Your task to perform on an android device: Search for acer predator on target.com, select the first entry, add it to the cart, then select checkout. Image 0: 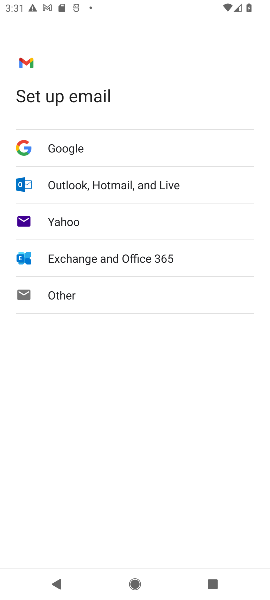
Step 0: press home button
Your task to perform on an android device: Search for acer predator on target.com, select the first entry, add it to the cart, then select checkout. Image 1: 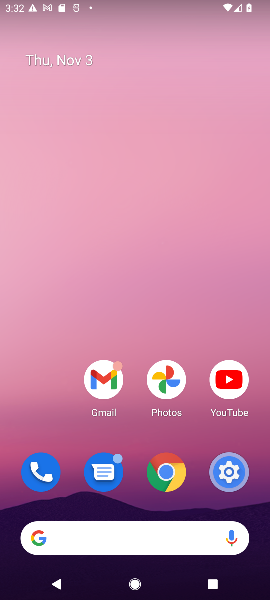
Step 1: click (120, 548)
Your task to perform on an android device: Search for acer predator on target.com, select the first entry, add it to the cart, then select checkout. Image 2: 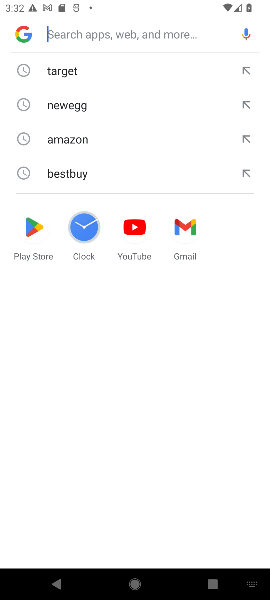
Step 2: click (106, 66)
Your task to perform on an android device: Search for acer predator on target.com, select the first entry, add it to the cart, then select checkout. Image 3: 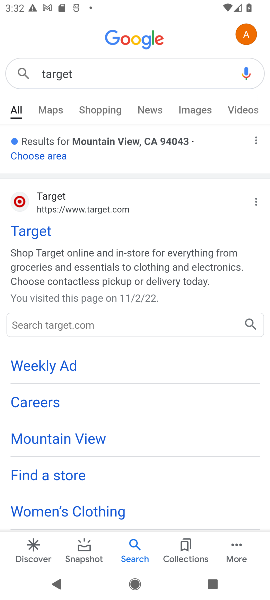
Step 3: click (34, 228)
Your task to perform on an android device: Search for acer predator on target.com, select the first entry, add it to the cart, then select checkout. Image 4: 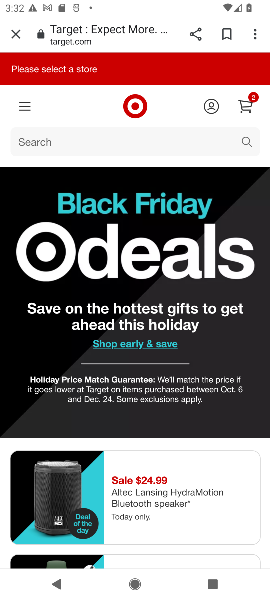
Step 4: click (104, 130)
Your task to perform on an android device: Search for acer predator on target.com, select the first entry, add it to the cart, then select checkout. Image 5: 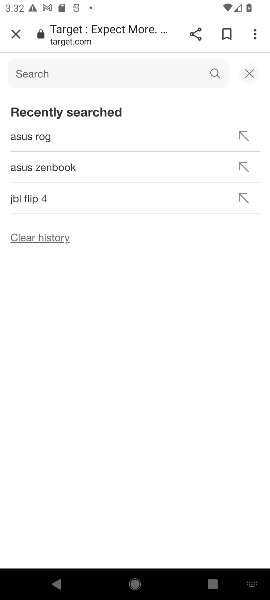
Step 5: type "acer pred"
Your task to perform on an android device: Search for acer predator on target.com, select the first entry, add it to the cart, then select checkout. Image 6: 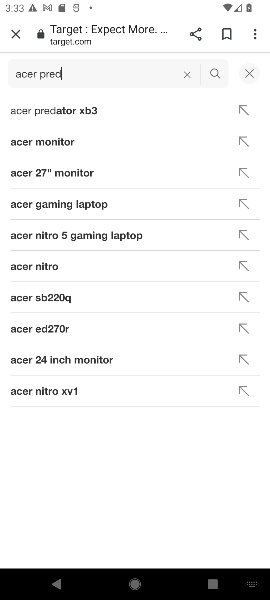
Step 6: type "acer "
Your task to perform on an android device: Search for acer predator on target.com, select the first entry, add it to the cart, then select checkout. Image 7: 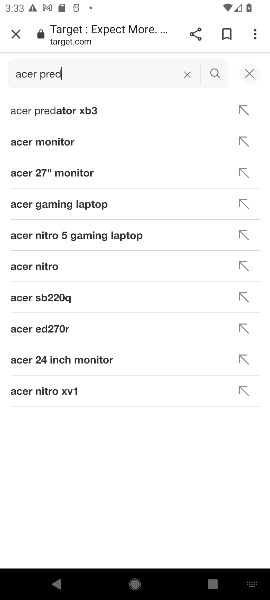
Step 7: click (105, 117)
Your task to perform on an android device: Search for acer predator on target.com, select the first entry, add it to the cart, then select checkout. Image 8: 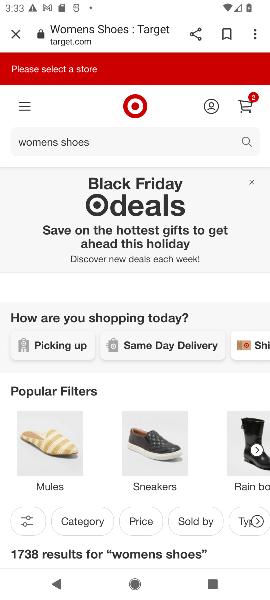
Step 8: click (133, 149)
Your task to perform on an android device: Search for acer predator on target.com, select the first entry, add it to the cart, then select checkout. Image 9: 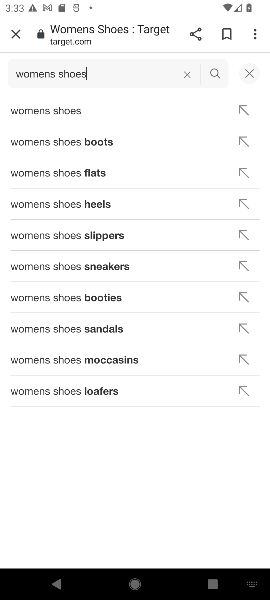
Step 9: click (187, 77)
Your task to perform on an android device: Search for acer predator on target.com, select the first entry, add it to the cart, then select checkout. Image 10: 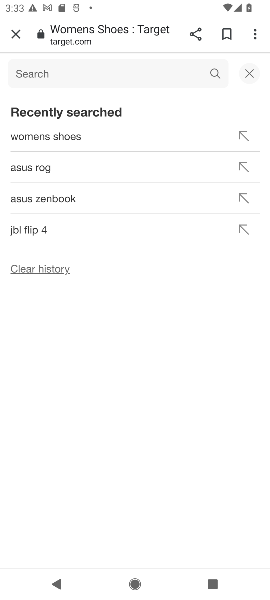
Step 10: click (76, 71)
Your task to perform on an android device: Search for acer predator on target.com, select the first entry, add it to the cart, then select checkout. Image 11: 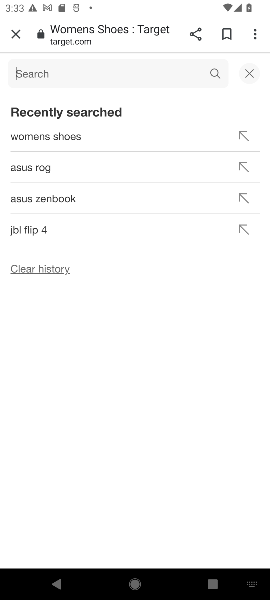
Step 11: type "acer predator"
Your task to perform on an android device: Search for acer predator on target.com, select the first entry, add it to the cart, then select checkout. Image 12: 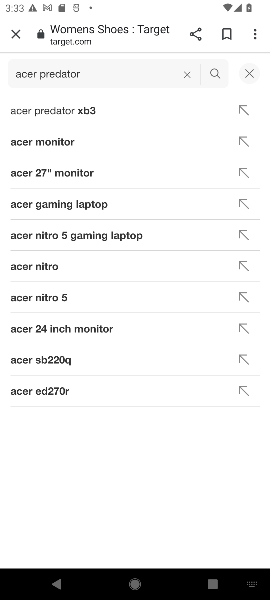
Step 12: click (218, 70)
Your task to perform on an android device: Search for acer predator on target.com, select the first entry, add it to the cart, then select checkout. Image 13: 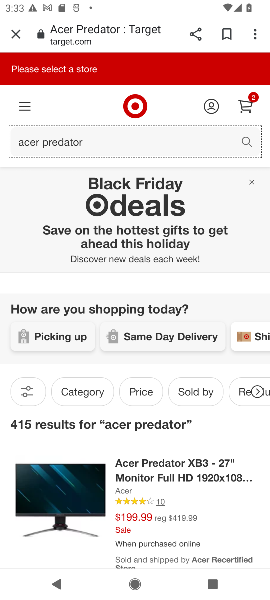
Step 13: click (182, 472)
Your task to perform on an android device: Search for acer predator on target.com, select the first entry, add it to the cart, then select checkout. Image 14: 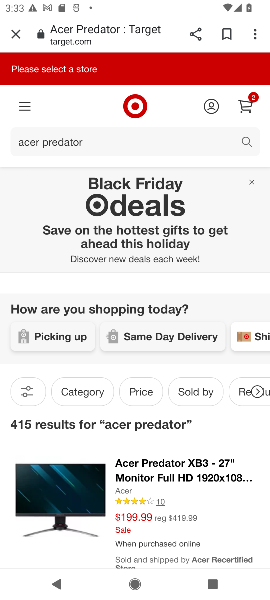
Step 14: click (182, 472)
Your task to perform on an android device: Search for acer predator on target.com, select the first entry, add it to the cart, then select checkout. Image 15: 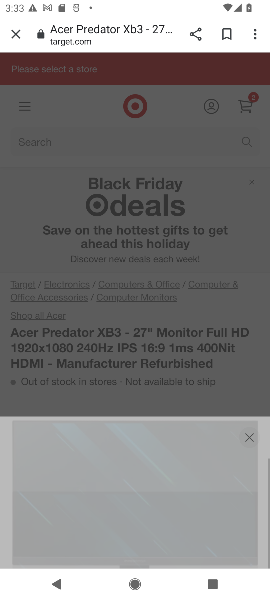
Step 15: drag from (182, 472) to (141, 178)
Your task to perform on an android device: Search for acer predator on target.com, select the first entry, add it to the cart, then select checkout. Image 16: 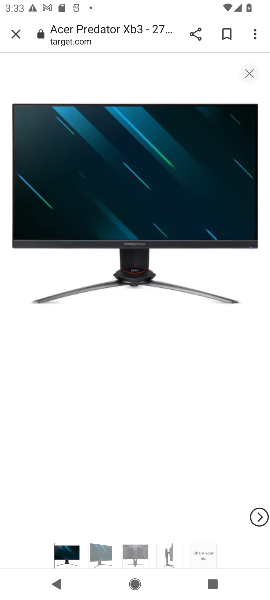
Step 16: click (239, 75)
Your task to perform on an android device: Search for acer predator on target.com, select the first entry, add it to the cart, then select checkout. Image 17: 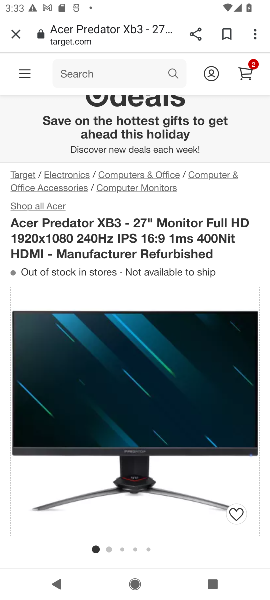
Step 17: drag from (173, 493) to (153, 308)
Your task to perform on an android device: Search for acer predator on target.com, select the first entry, add it to the cart, then select checkout. Image 18: 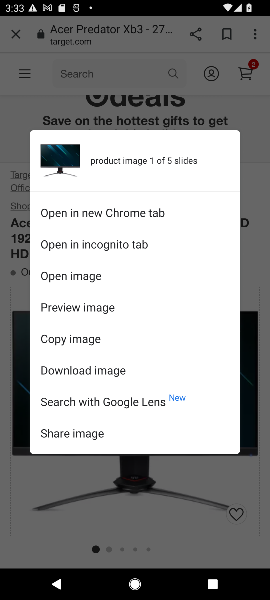
Step 18: click (173, 524)
Your task to perform on an android device: Search for acer predator on target.com, select the first entry, add it to the cart, then select checkout. Image 19: 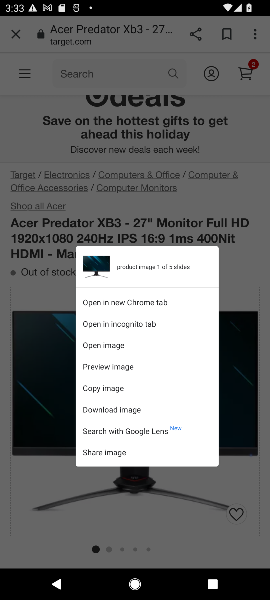
Step 19: task complete